Your task to perform on an android device: visit the assistant section in the google photos Image 0: 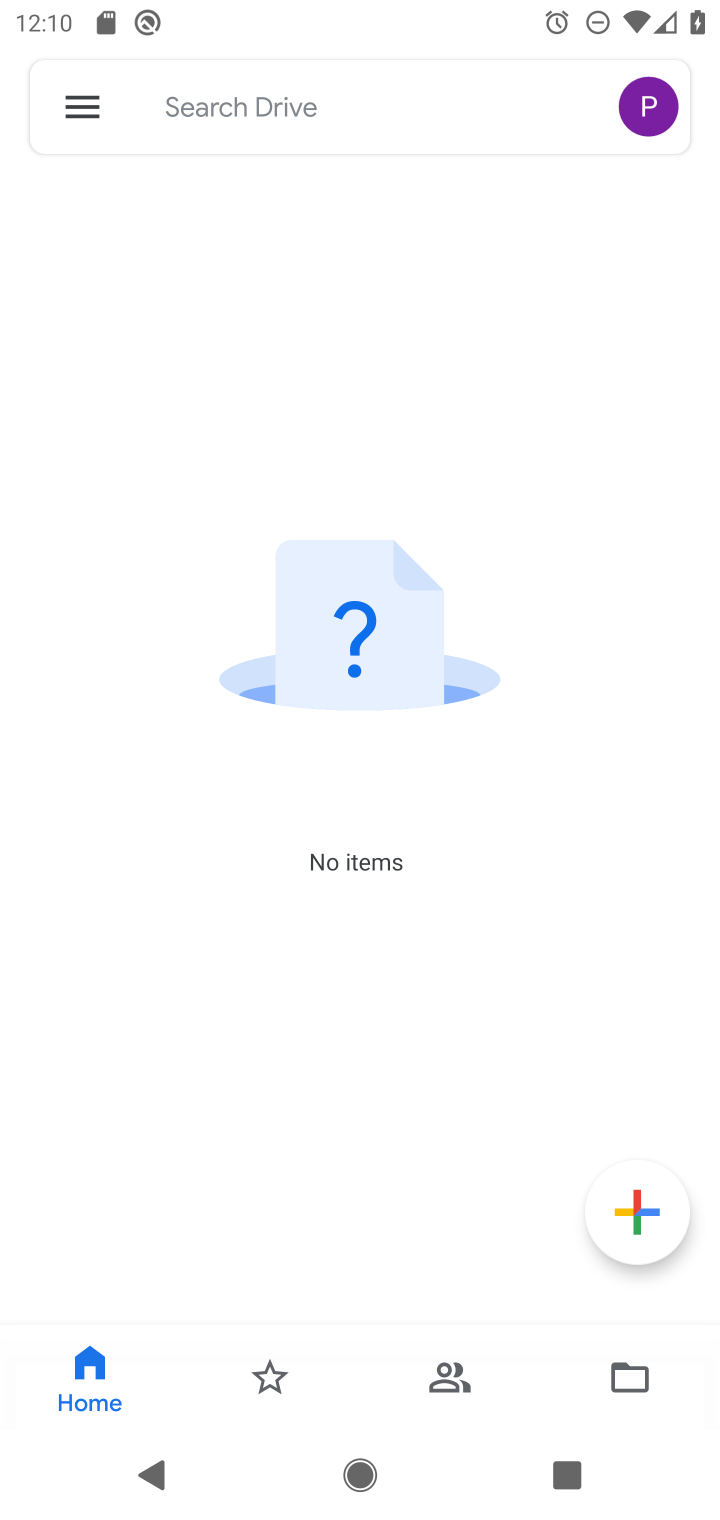
Step 0: press home button
Your task to perform on an android device: visit the assistant section in the google photos Image 1: 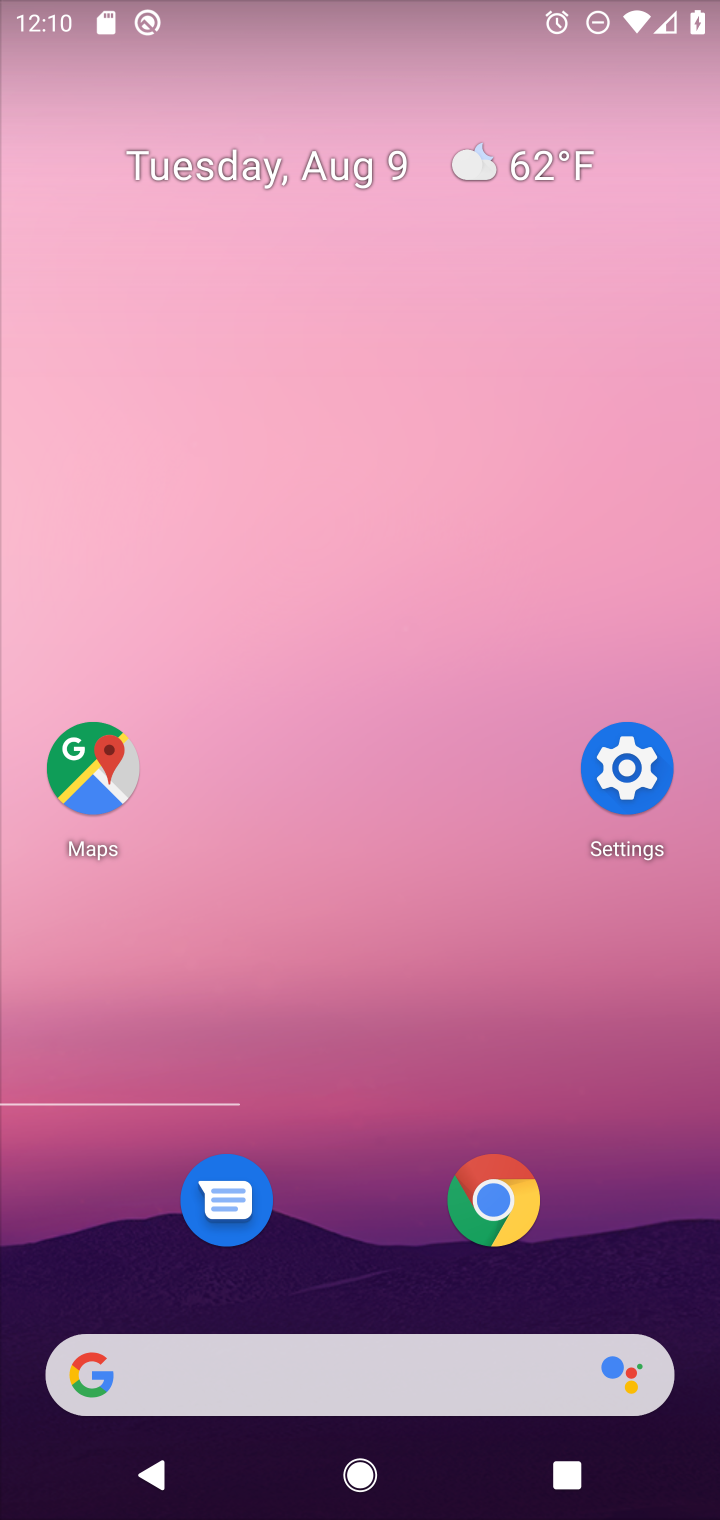
Step 1: drag from (465, 1189) to (634, 256)
Your task to perform on an android device: visit the assistant section in the google photos Image 2: 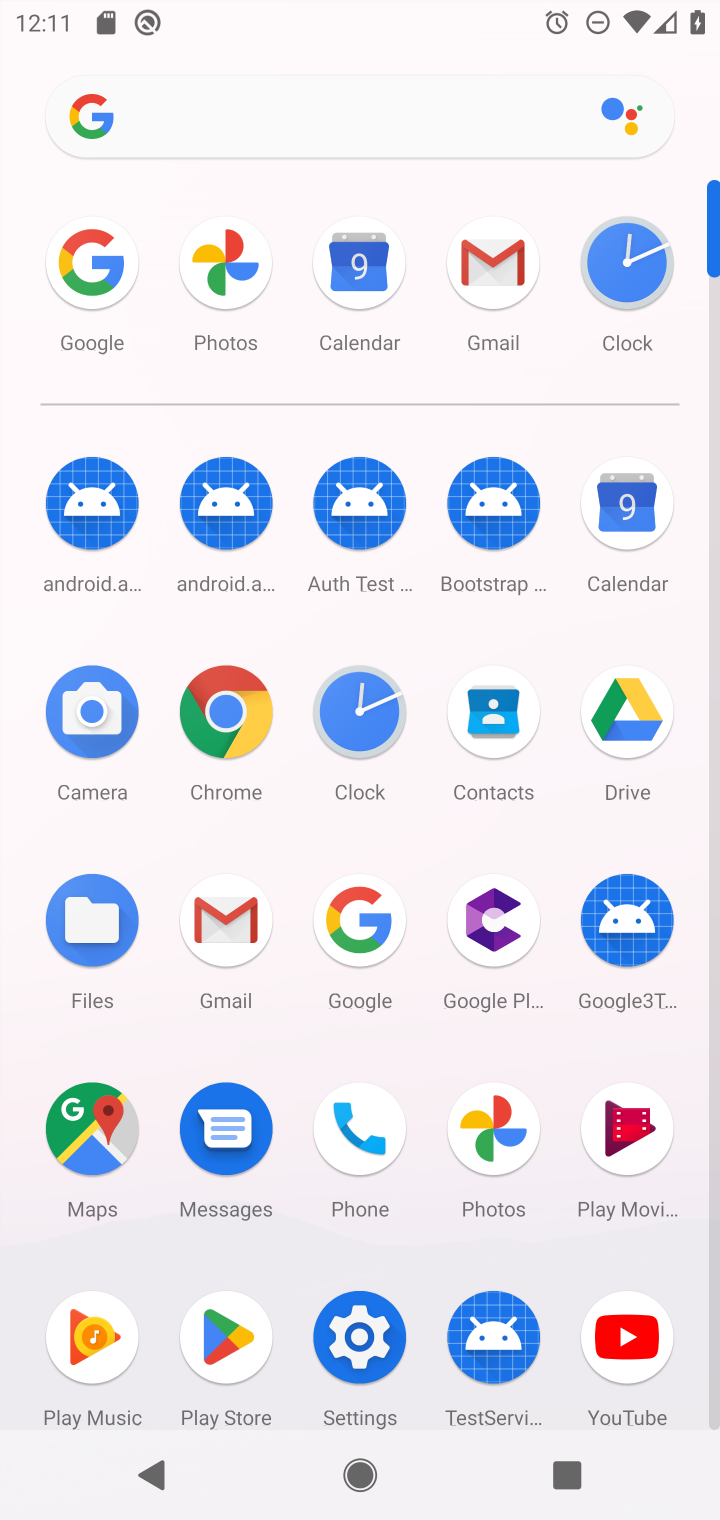
Step 2: click (479, 1102)
Your task to perform on an android device: visit the assistant section in the google photos Image 3: 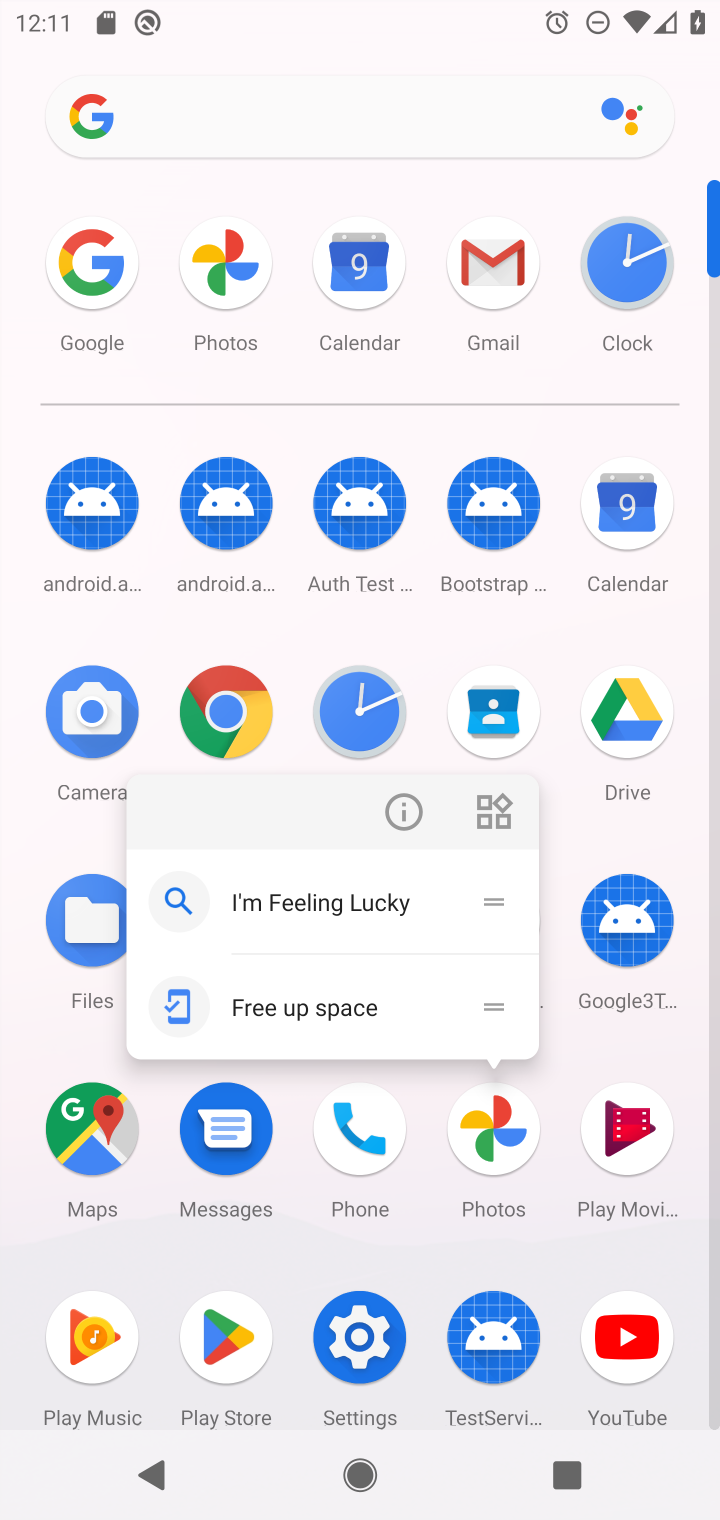
Step 3: click (479, 1143)
Your task to perform on an android device: visit the assistant section in the google photos Image 4: 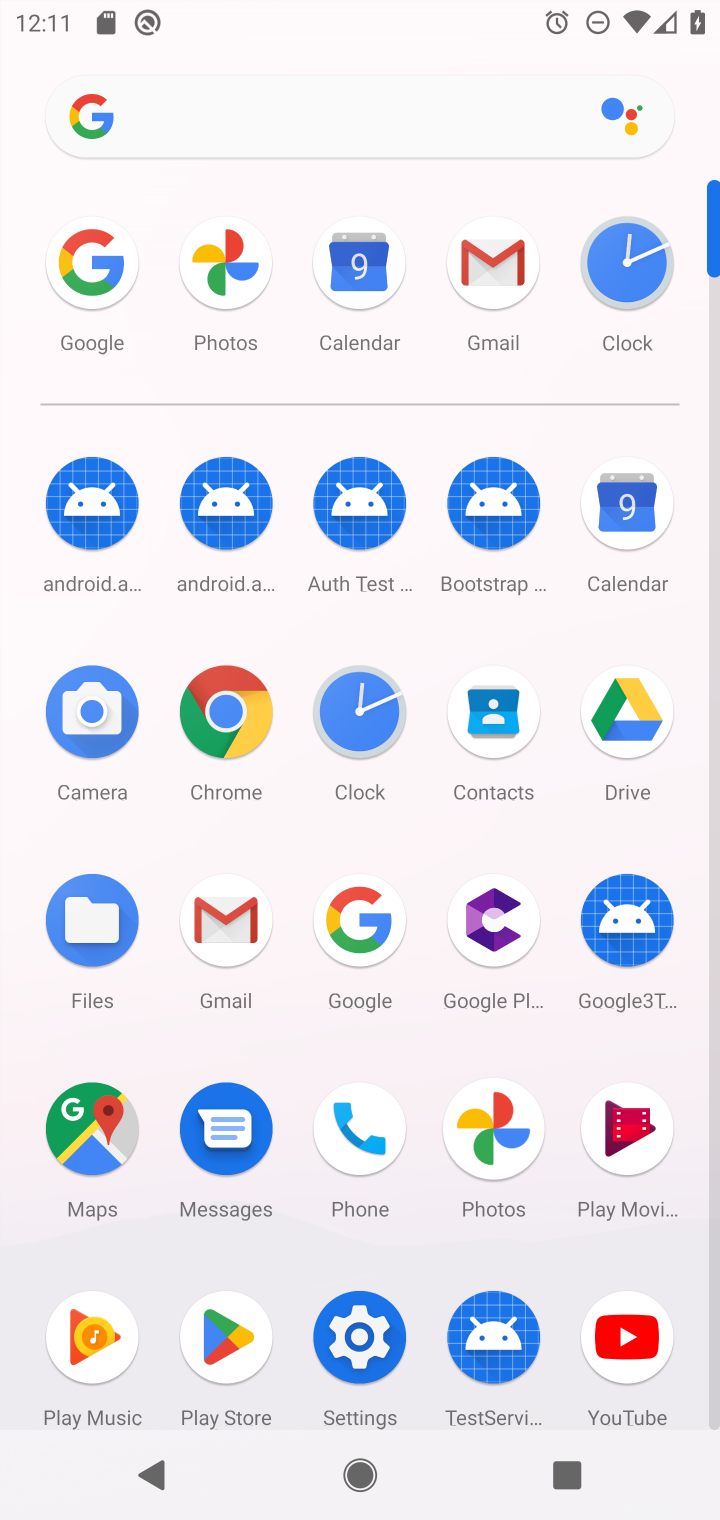
Step 4: click (479, 1147)
Your task to perform on an android device: visit the assistant section in the google photos Image 5: 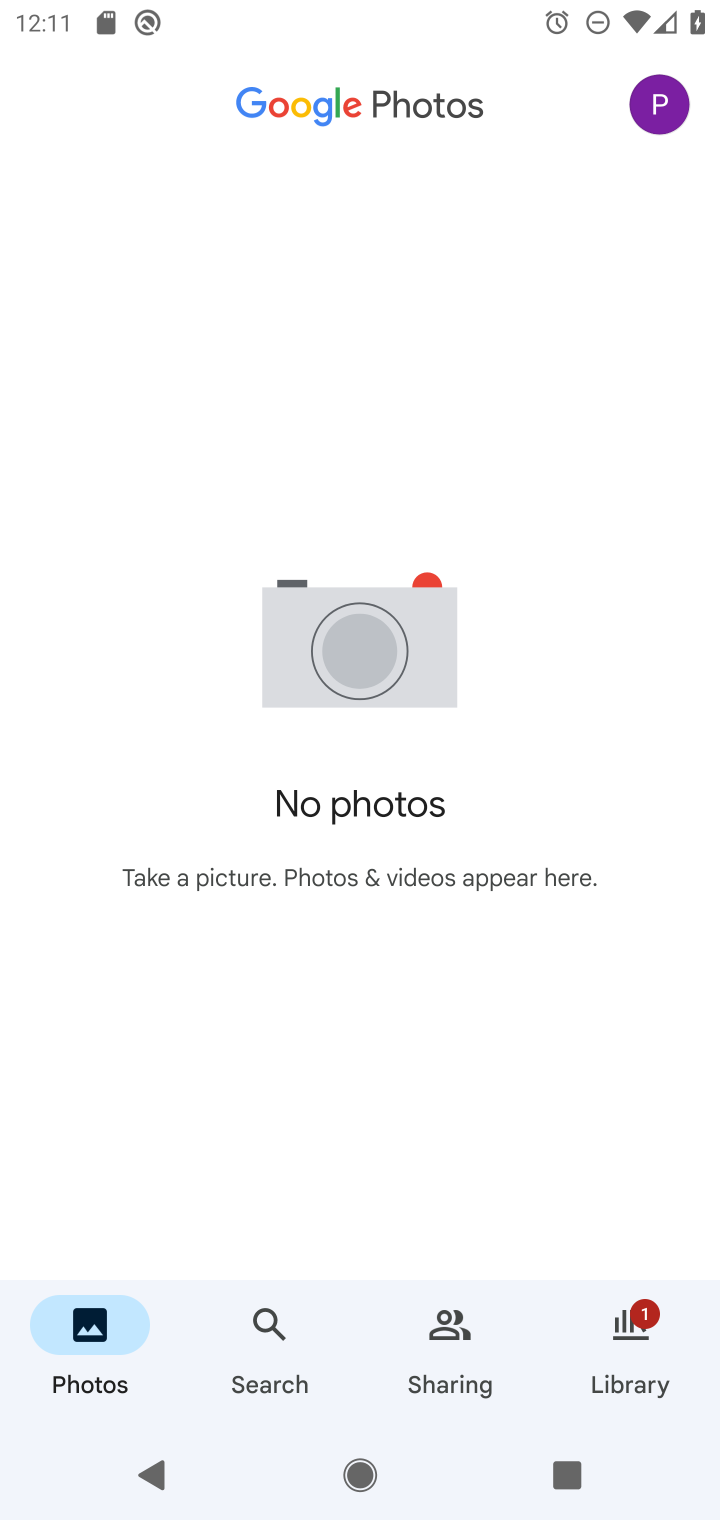
Step 5: click (632, 1346)
Your task to perform on an android device: visit the assistant section in the google photos Image 6: 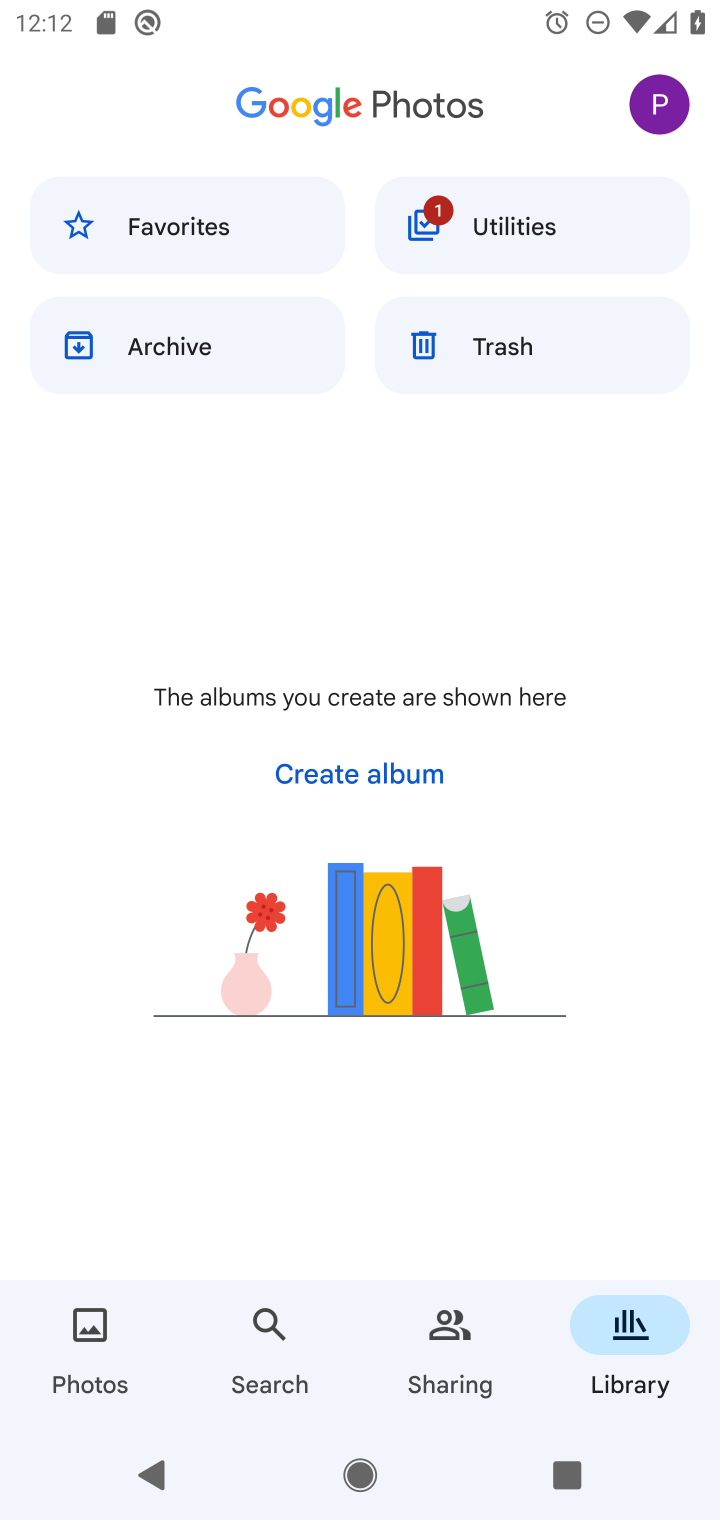
Step 6: task complete